Your task to perform on an android device: turn off priority inbox in the gmail app Image 0: 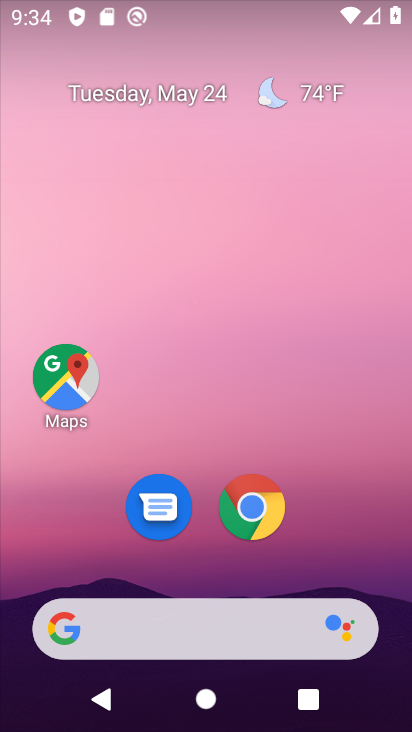
Step 0: drag from (233, 725) to (236, 122)
Your task to perform on an android device: turn off priority inbox in the gmail app Image 1: 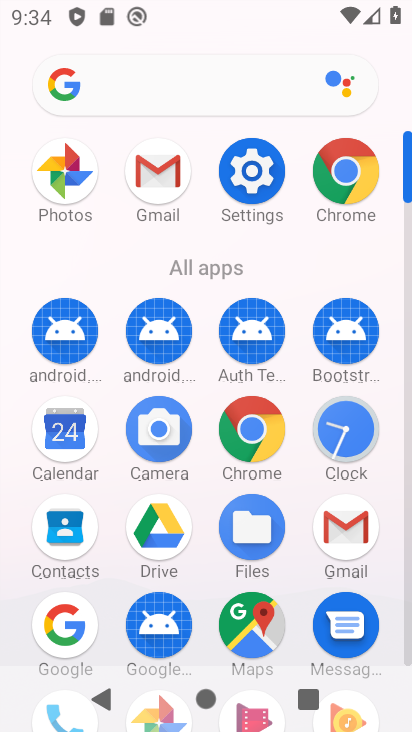
Step 1: click (345, 518)
Your task to perform on an android device: turn off priority inbox in the gmail app Image 2: 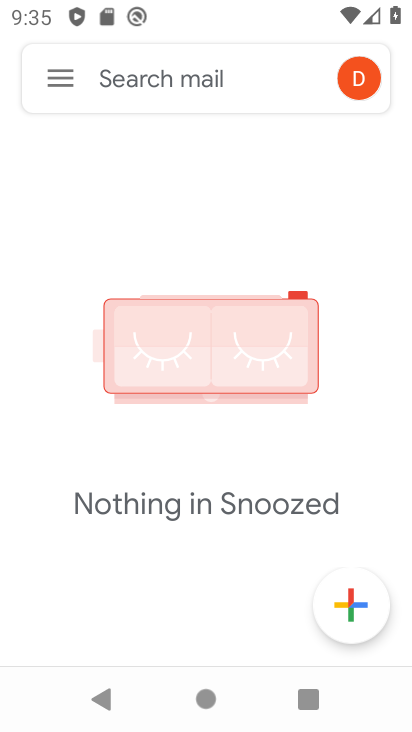
Step 2: click (60, 85)
Your task to perform on an android device: turn off priority inbox in the gmail app Image 3: 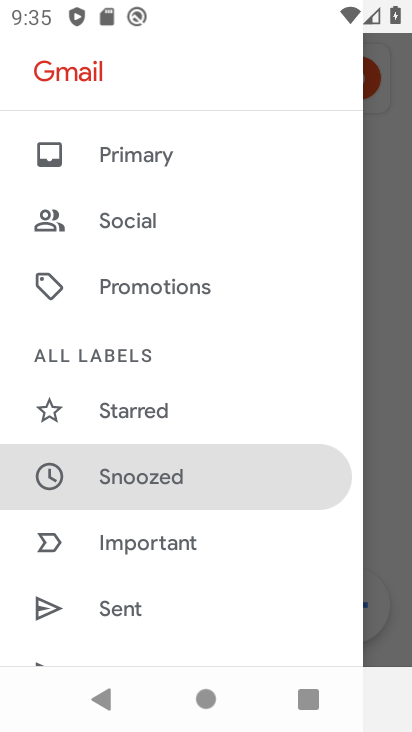
Step 3: drag from (135, 615) to (147, 197)
Your task to perform on an android device: turn off priority inbox in the gmail app Image 4: 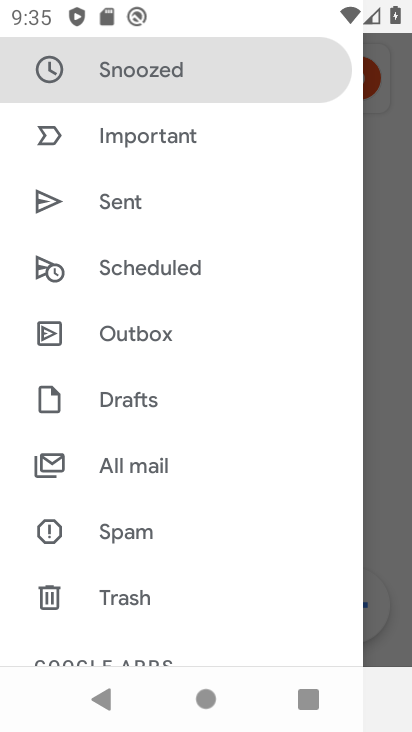
Step 4: drag from (151, 619) to (156, 217)
Your task to perform on an android device: turn off priority inbox in the gmail app Image 5: 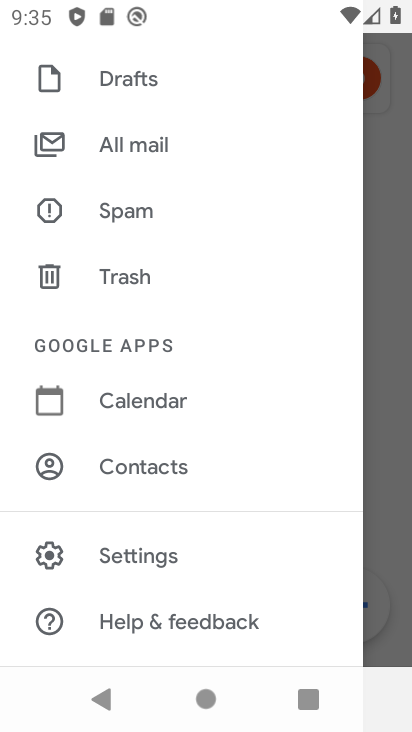
Step 5: click (137, 557)
Your task to perform on an android device: turn off priority inbox in the gmail app Image 6: 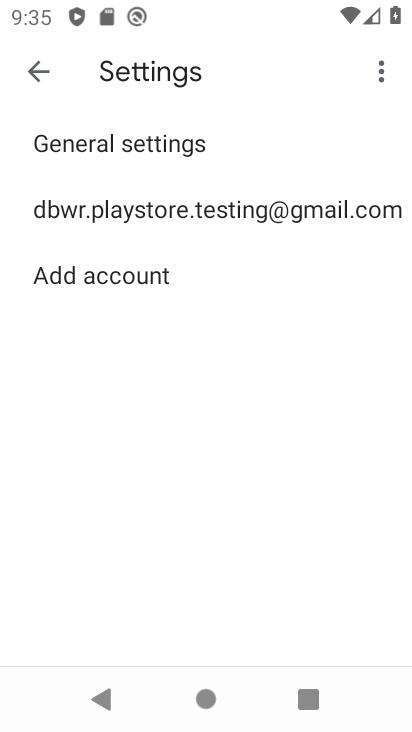
Step 6: click (168, 206)
Your task to perform on an android device: turn off priority inbox in the gmail app Image 7: 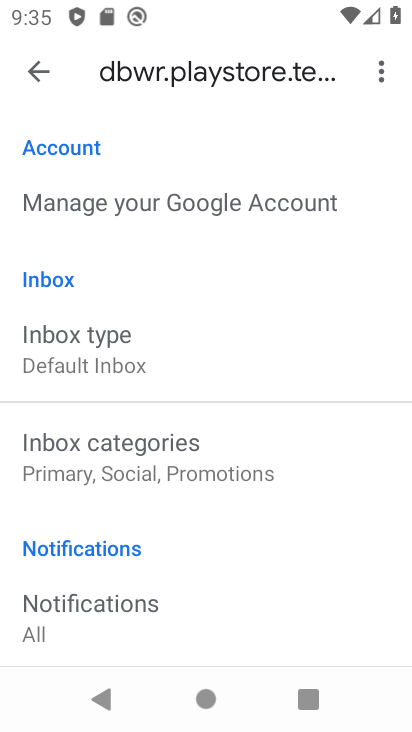
Step 7: click (77, 361)
Your task to perform on an android device: turn off priority inbox in the gmail app Image 8: 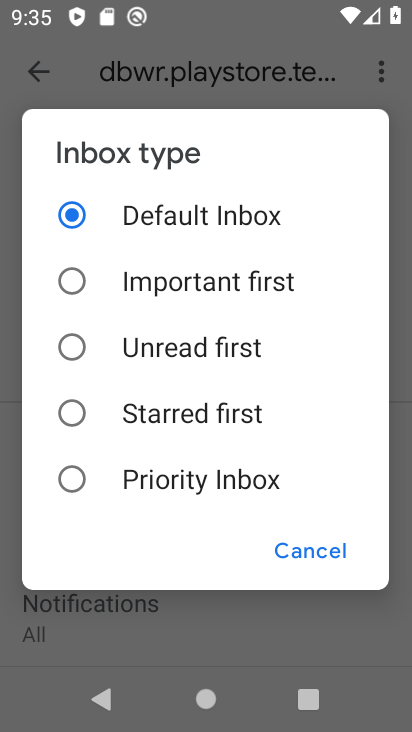
Step 8: click (303, 544)
Your task to perform on an android device: turn off priority inbox in the gmail app Image 9: 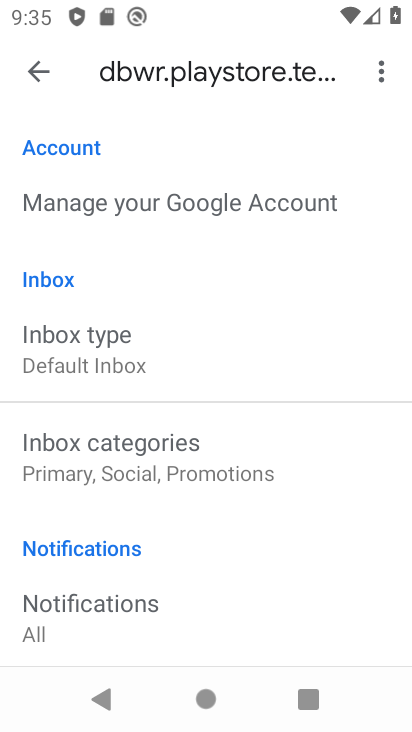
Step 9: task complete